Your task to perform on an android device: search for starred emails in the gmail app Image 0: 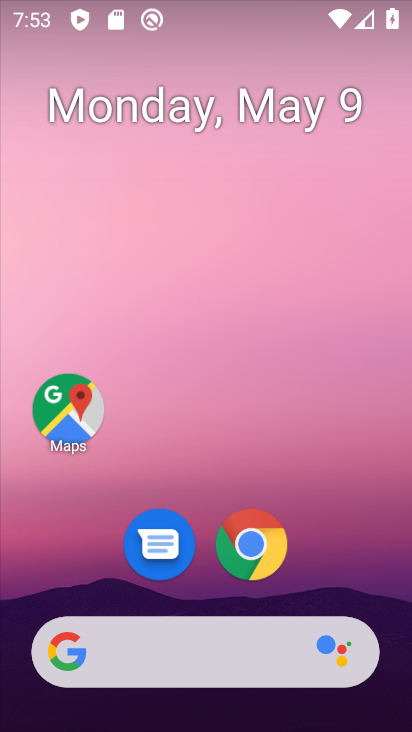
Step 0: drag from (198, 572) to (200, 163)
Your task to perform on an android device: search for starred emails in the gmail app Image 1: 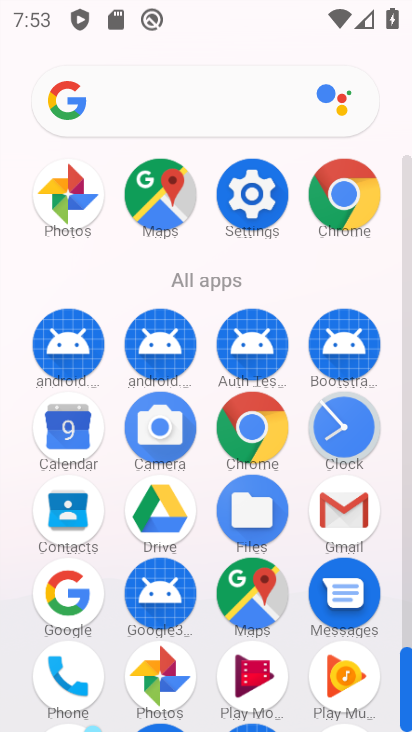
Step 1: click (333, 516)
Your task to perform on an android device: search for starred emails in the gmail app Image 2: 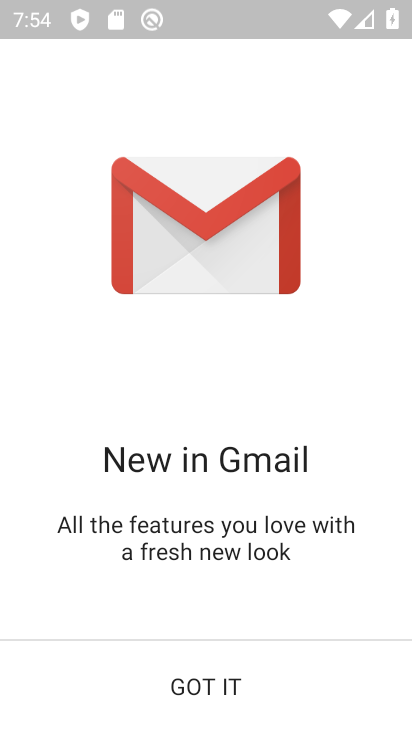
Step 2: click (244, 660)
Your task to perform on an android device: search for starred emails in the gmail app Image 3: 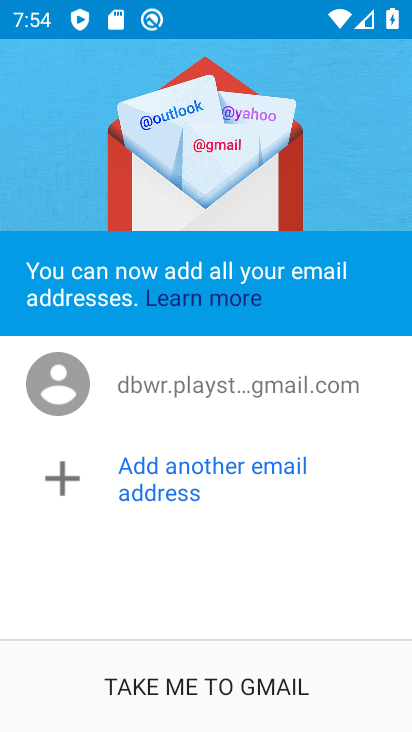
Step 3: click (262, 670)
Your task to perform on an android device: search for starred emails in the gmail app Image 4: 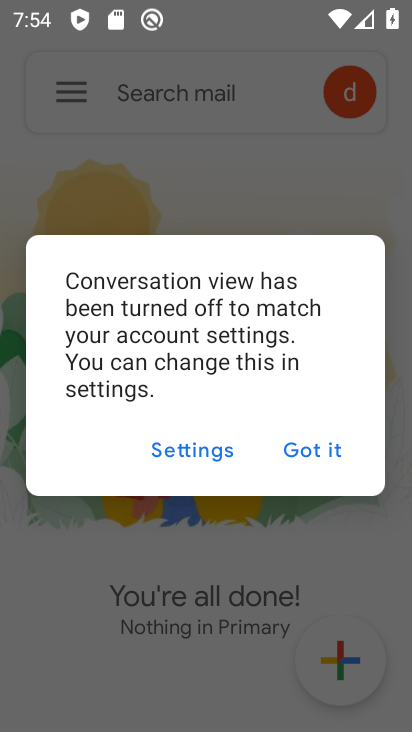
Step 4: click (315, 449)
Your task to perform on an android device: search for starred emails in the gmail app Image 5: 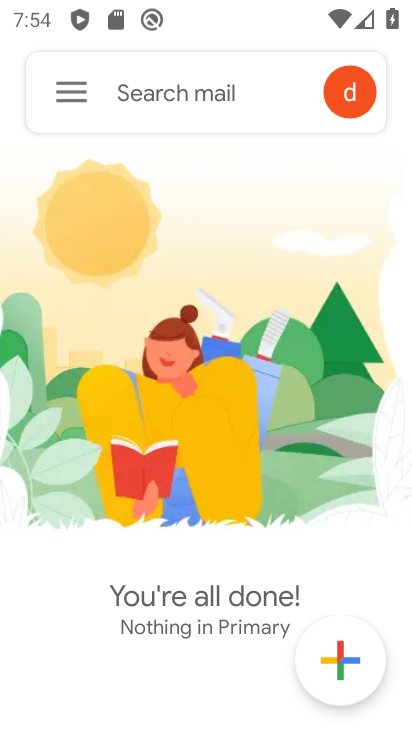
Step 5: click (61, 103)
Your task to perform on an android device: search for starred emails in the gmail app Image 6: 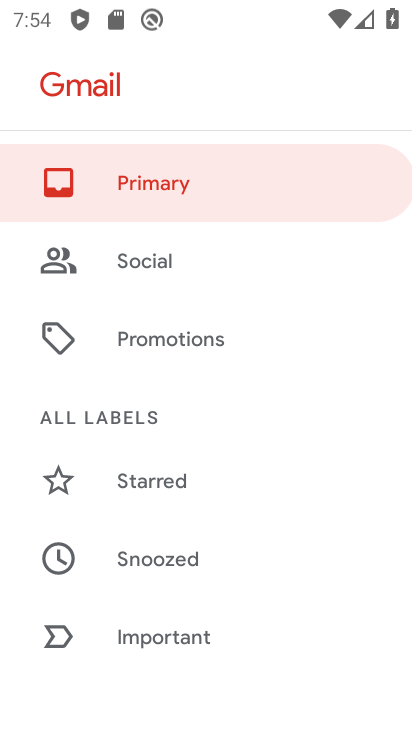
Step 6: click (140, 485)
Your task to perform on an android device: search for starred emails in the gmail app Image 7: 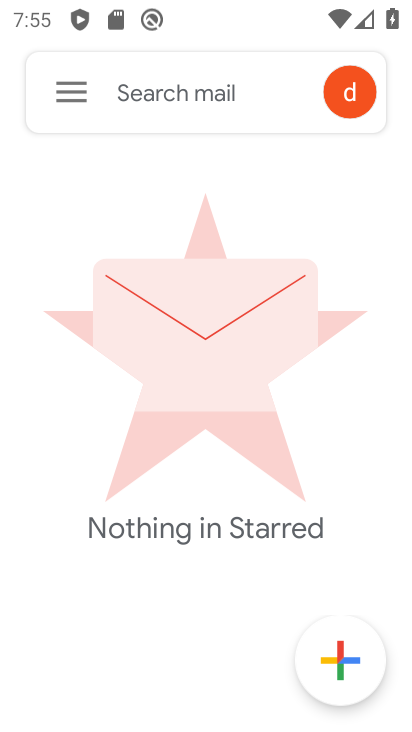
Step 7: task complete